Your task to perform on an android device: Go to Android settings Image 0: 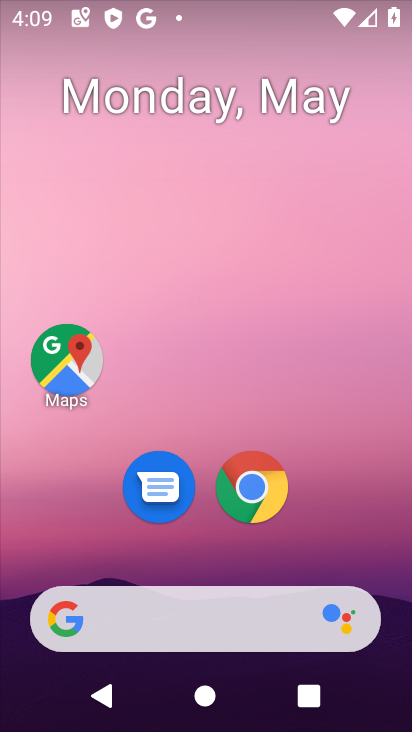
Step 0: drag from (365, 561) to (345, 6)
Your task to perform on an android device: Go to Android settings Image 1: 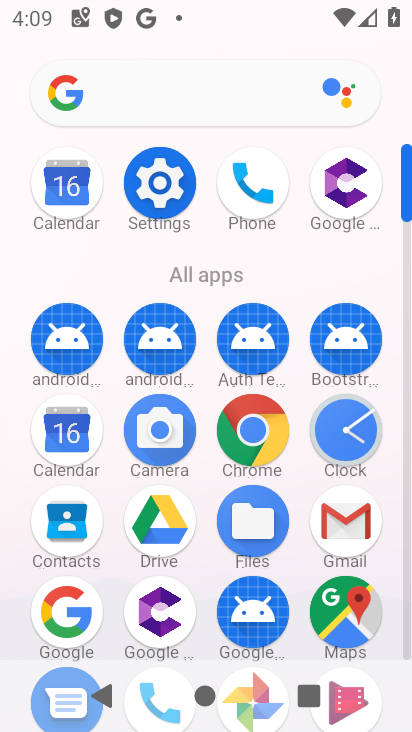
Step 1: click (146, 185)
Your task to perform on an android device: Go to Android settings Image 2: 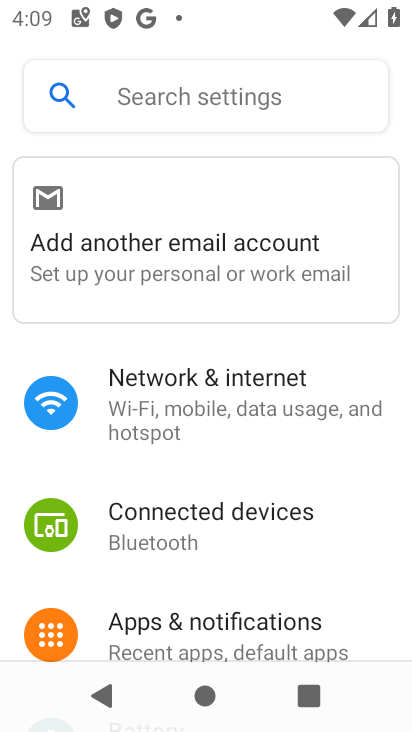
Step 2: drag from (286, 618) to (265, 31)
Your task to perform on an android device: Go to Android settings Image 3: 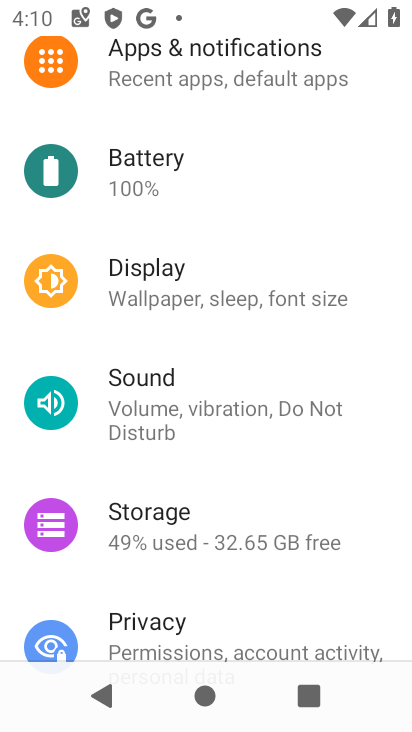
Step 3: drag from (238, 527) to (247, 5)
Your task to perform on an android device: Go to Android settings Image 4: 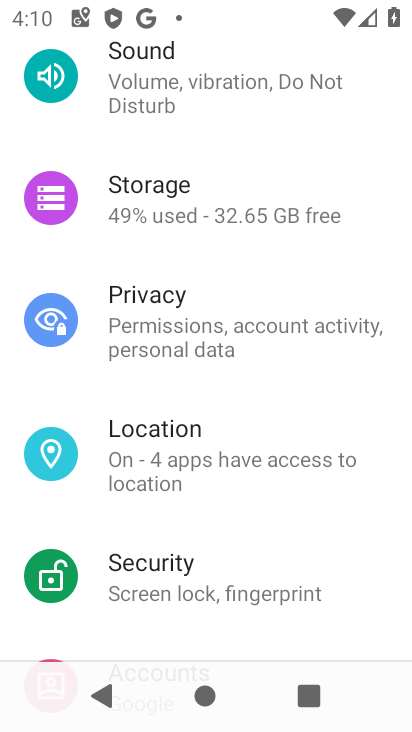
Step 4: drag from (234, 561) to (231, 14)
Your task to perform on an android device: Go to Android settings Image 5: 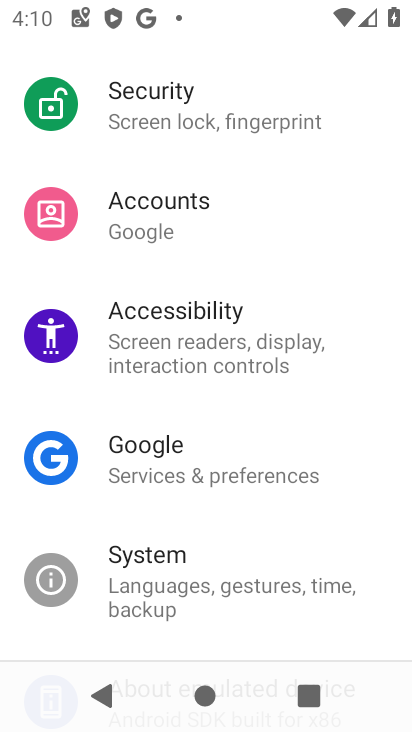
Step 5: drag from (223, 571) to (225, 45)
Your task to perform on an android device: Go to Android settings Image 6: 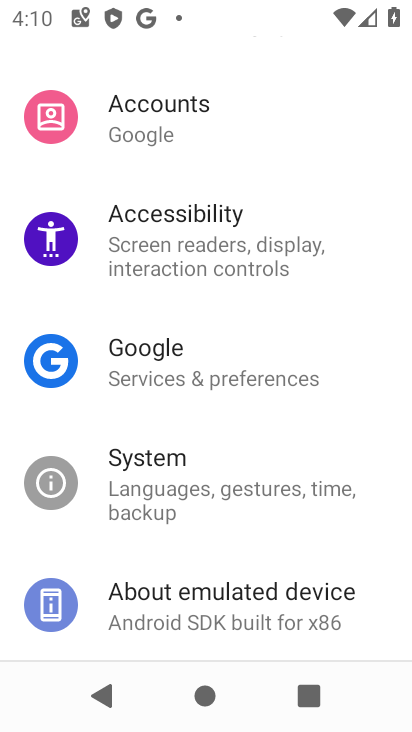
Step 6: click (197, 625)
Your task to perform on an android device: Go to Android settings Image 7: 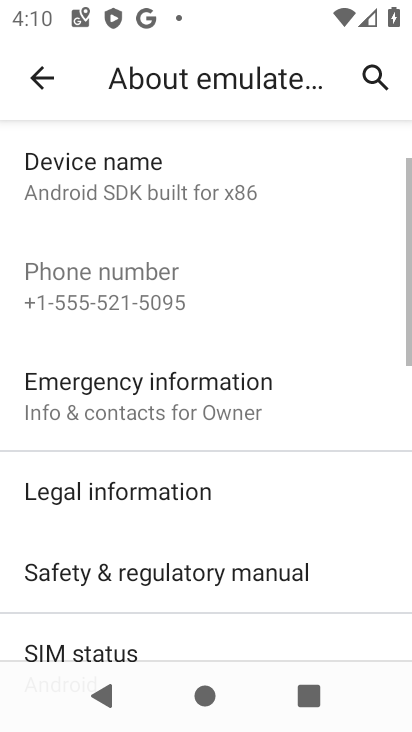
Step 7: task complete